Your task to perform on an android device: Clear all items from cart on walmart.com. Search for "macbook air" on walmart.com, select the first entry, and add it to the cart. Image 0: 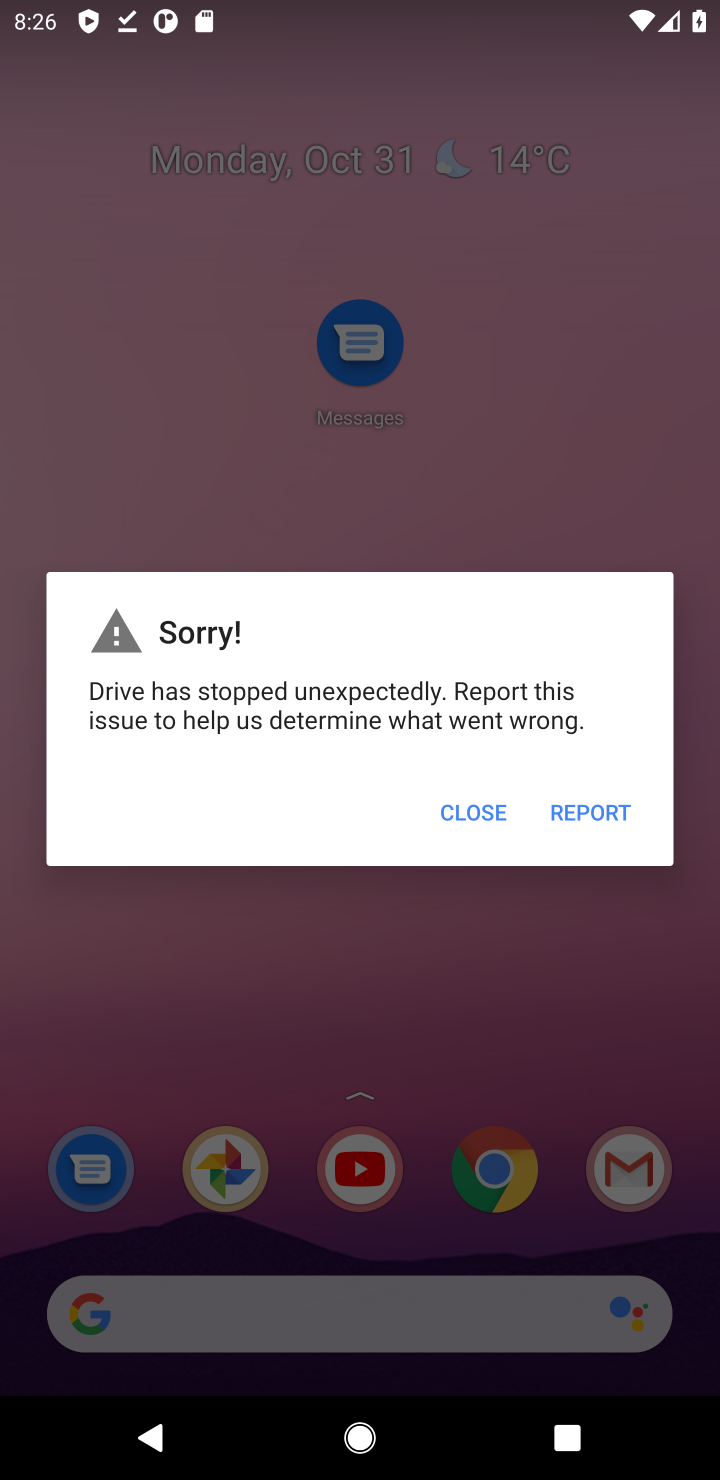
Step 0: click (463, 838)
Your task to perform on an android device: Clear all items from cart on walmart.com. Search for "macbook air" on walmart.com, select the first entry, and add it to the cart. Image 1: 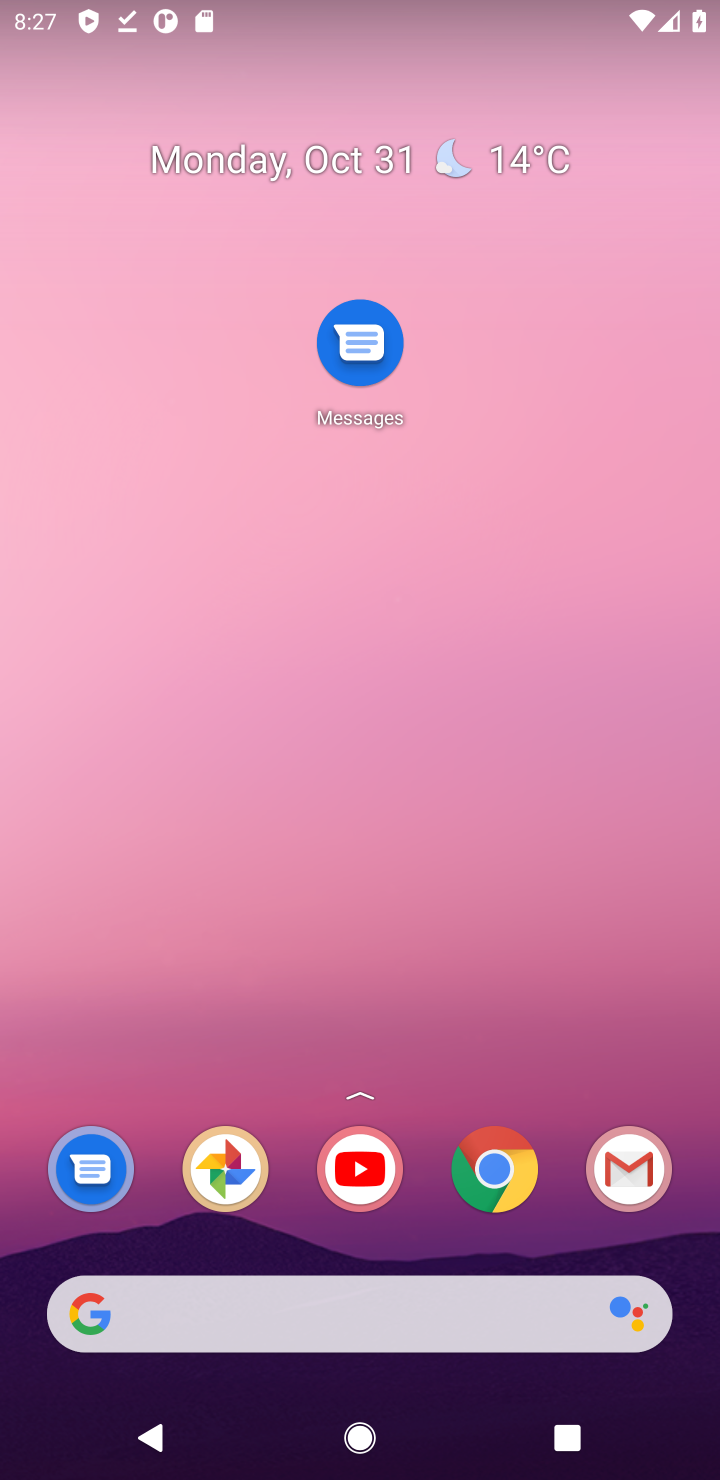
Step 1: drag from (276, 1205) to (429, 357)
Your task to perform on an android device: Clear all items from cart on walmart.com. Search for "macbook air" on walmart.com, select the first entry, and add it to the cart. Image 2: 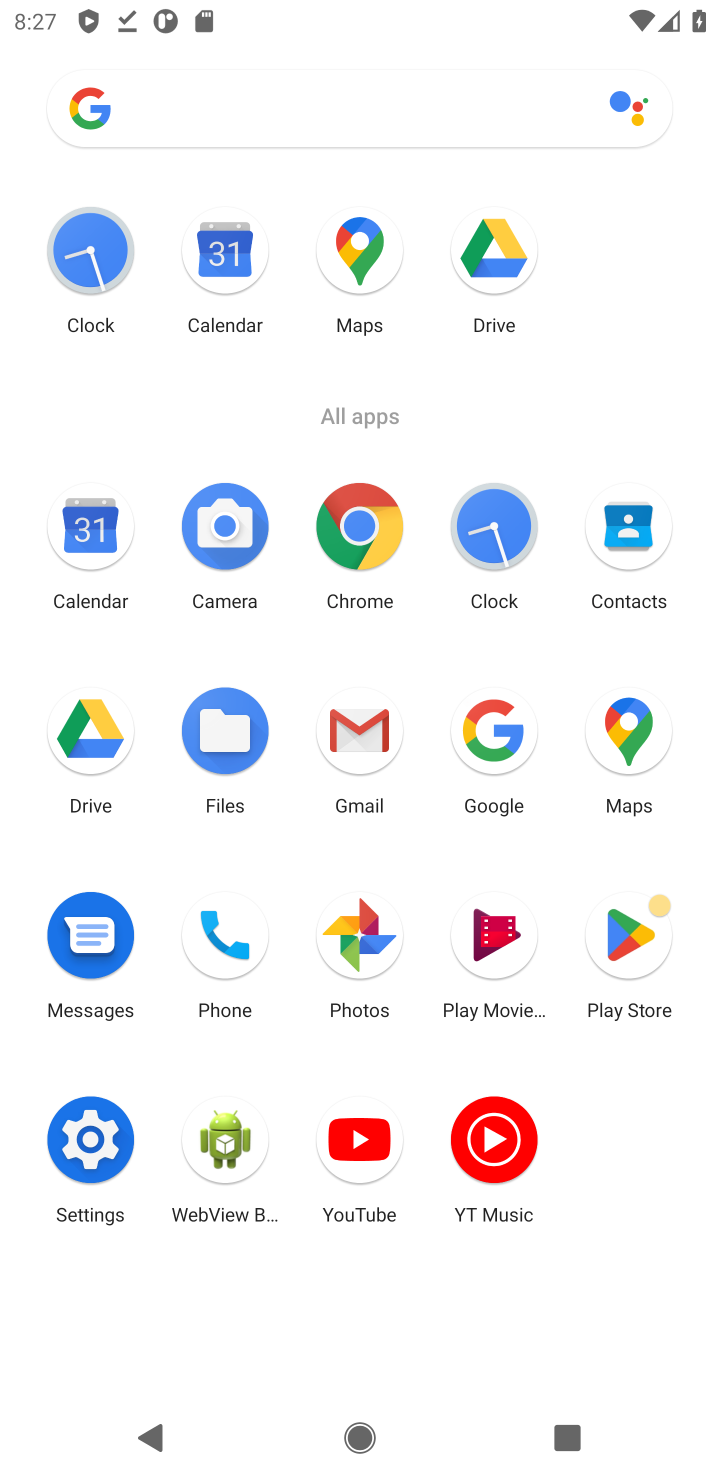
Step 2: click (476, 713)
Your task to perform on an android device: Clear all items from cart on walmart.com. Search for "macbook air" on walmart.com, select the first entry, and add it to the cart. Image 3: 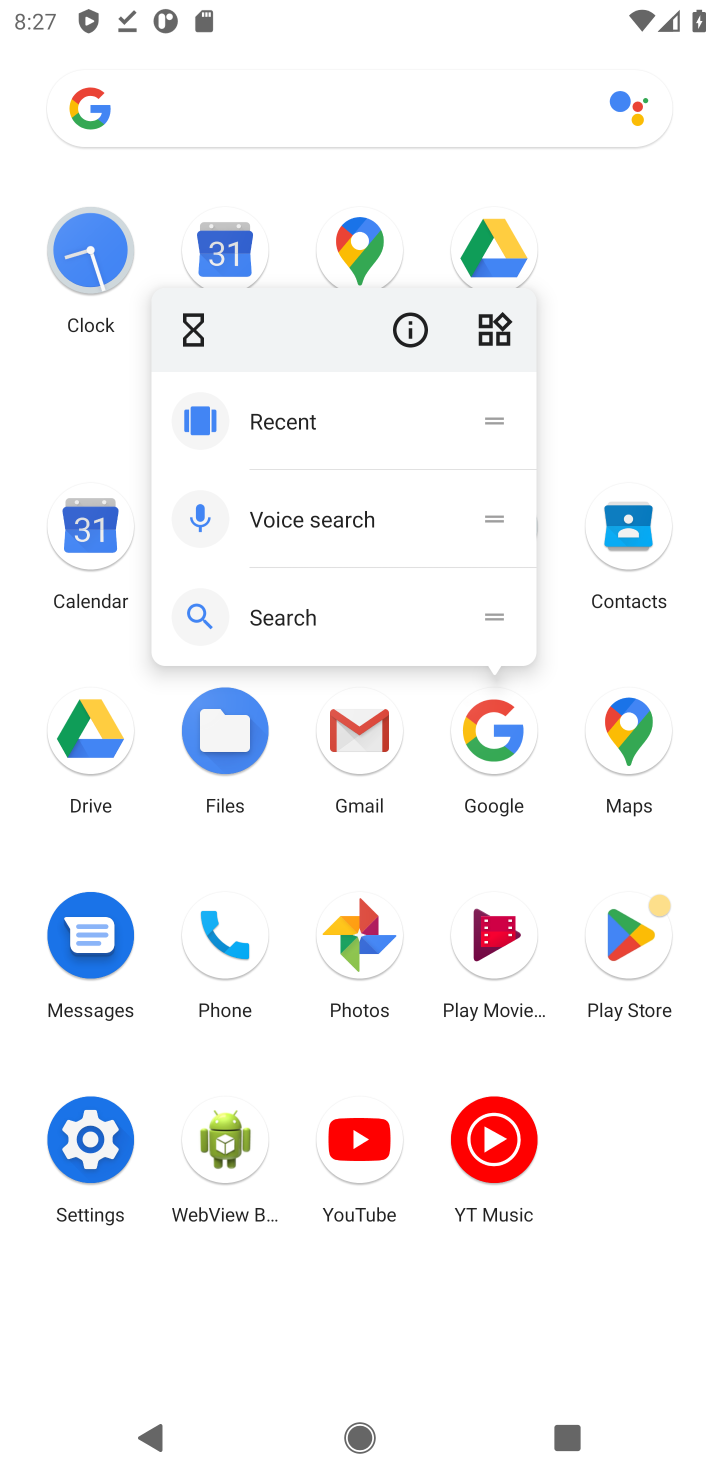
Step 3: click (496, 715)
Your task to perform on an android device: Clear all items from cart on walmart.com. Search for "macbook air" on walmart.com, select the first entry, and add it to the cart. Image 4: 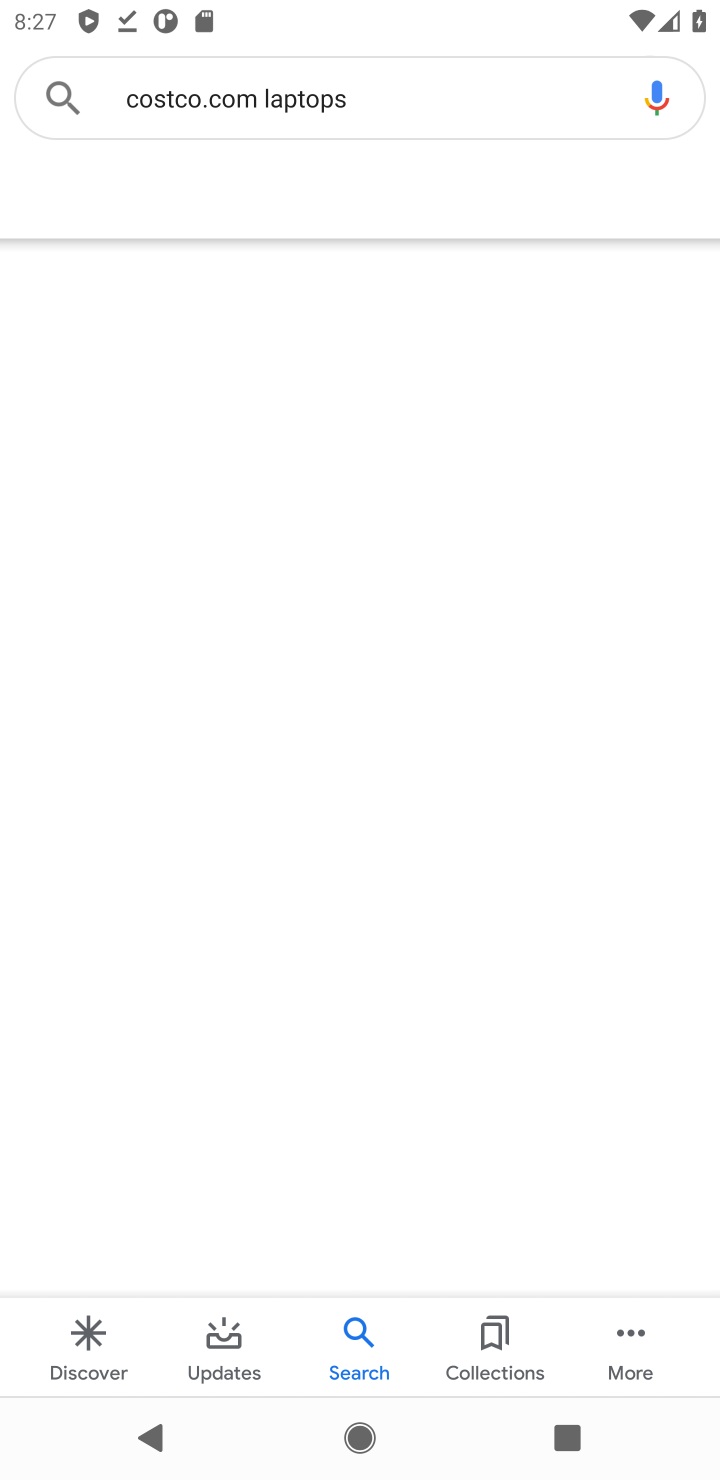
Step 4: click (557, 77)
Your task to perform on an android device: Clear all items from cart on walmart.com. Search for "macbook air" on walmart.com, select the first entry, and add it to the cart. Image 5: 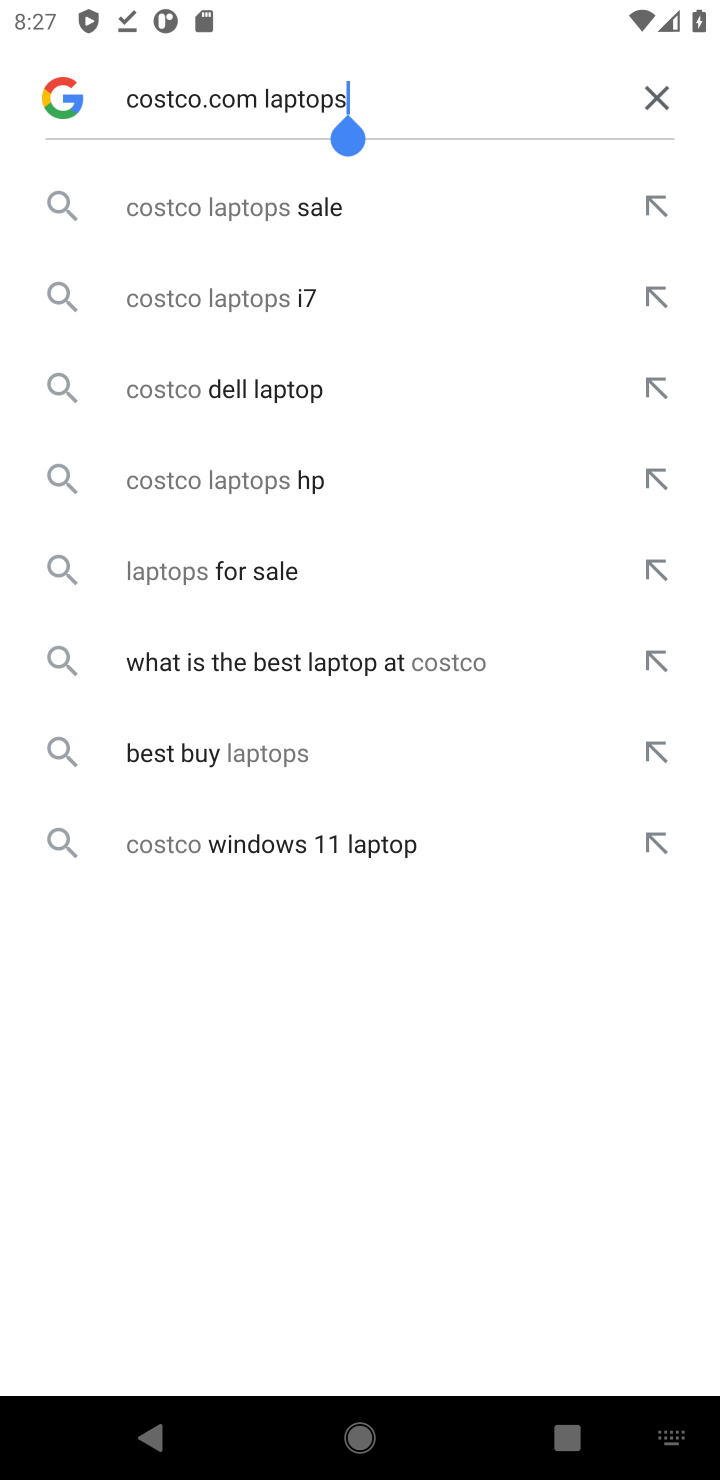
Step 5: click (648, 105)
Your task to perform on an android device: Clear all items from cart on walmart.com. Search for "macbook air" on walmart.com, select the first entry, and add it to the cart. Image 6: 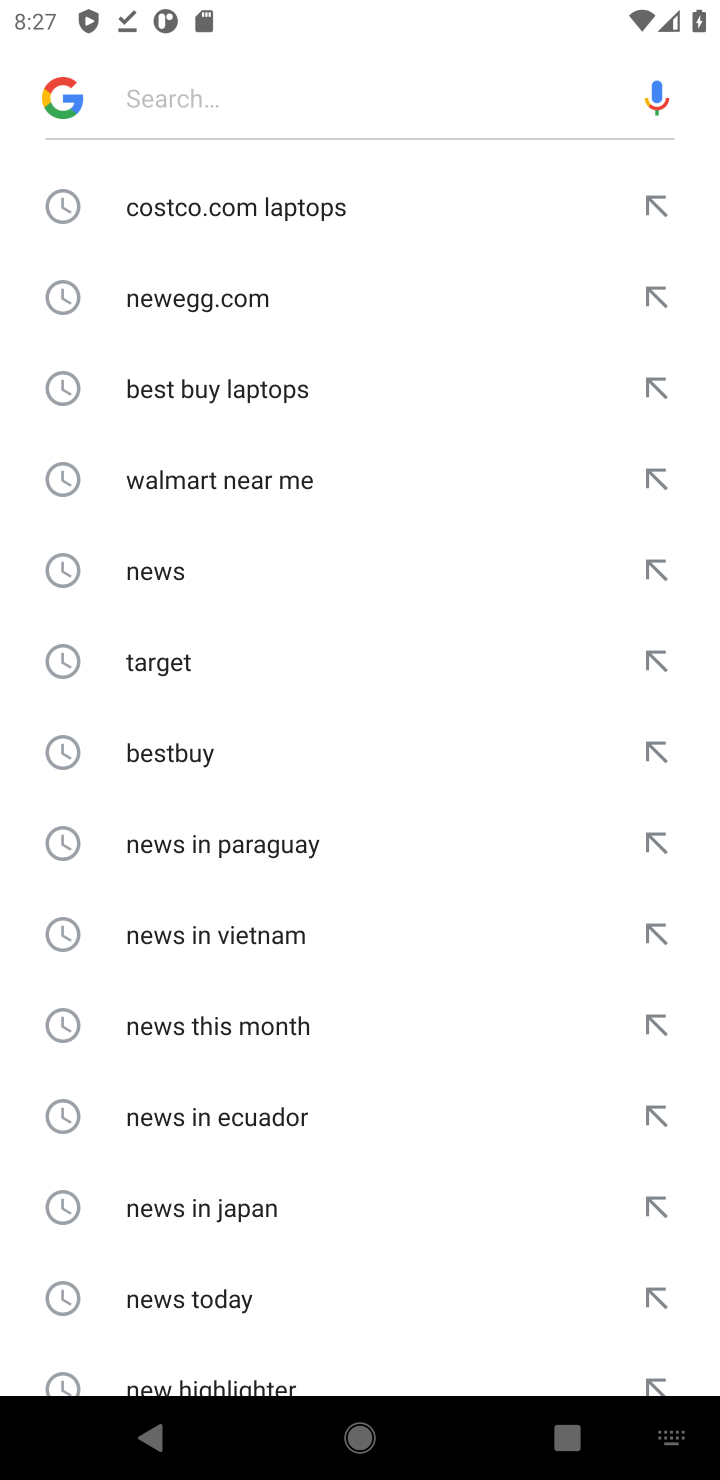
Step 6: click (282, 109)
Your task to perform on an android device: Clear all items from cart on walmart.com. Search for "macbook air" on walmart.com, select the first entry, and add it to the cart. Image 7: 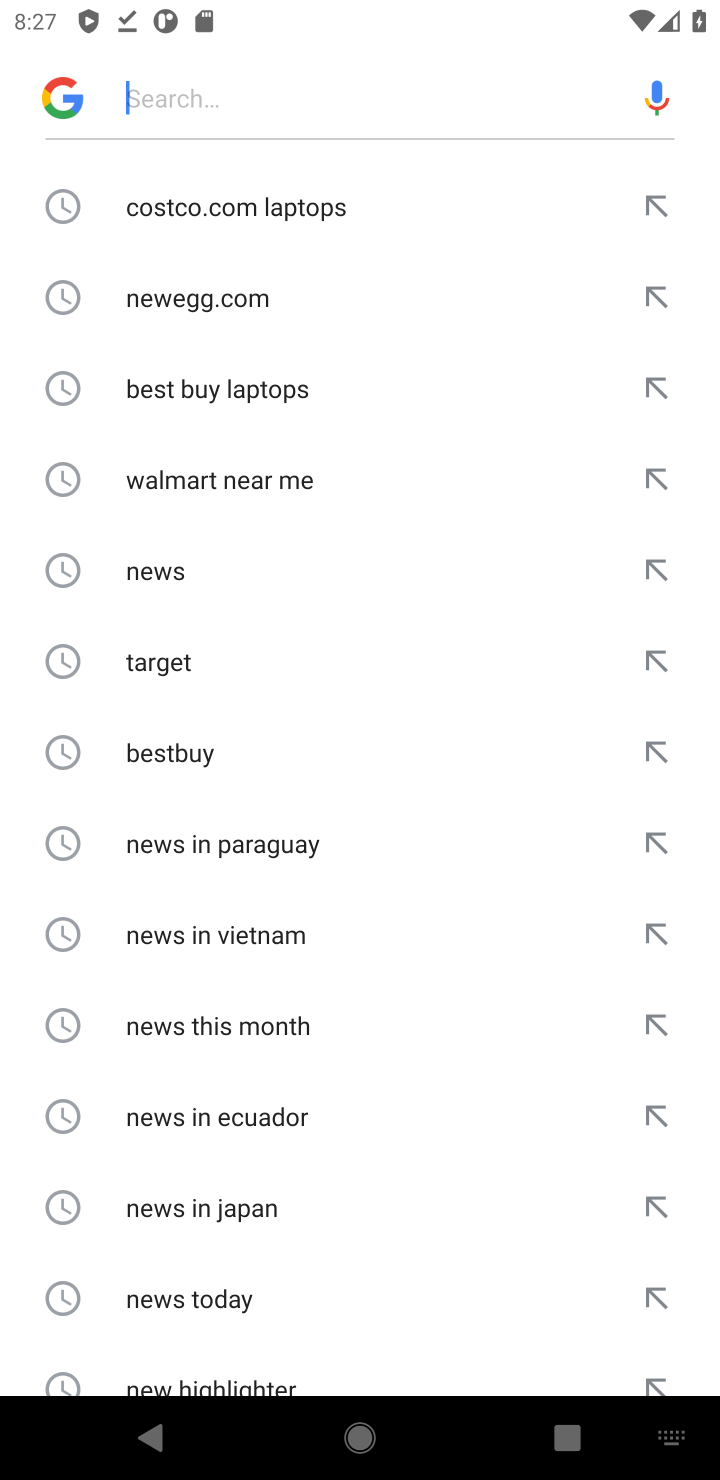
Step 7: type "walmart "
Your task to perform on an android device: Clear all items from cart on walmart.com. Search for "macbook air" on walmart.com, select the first entry, and add it to the cart. Image 8: 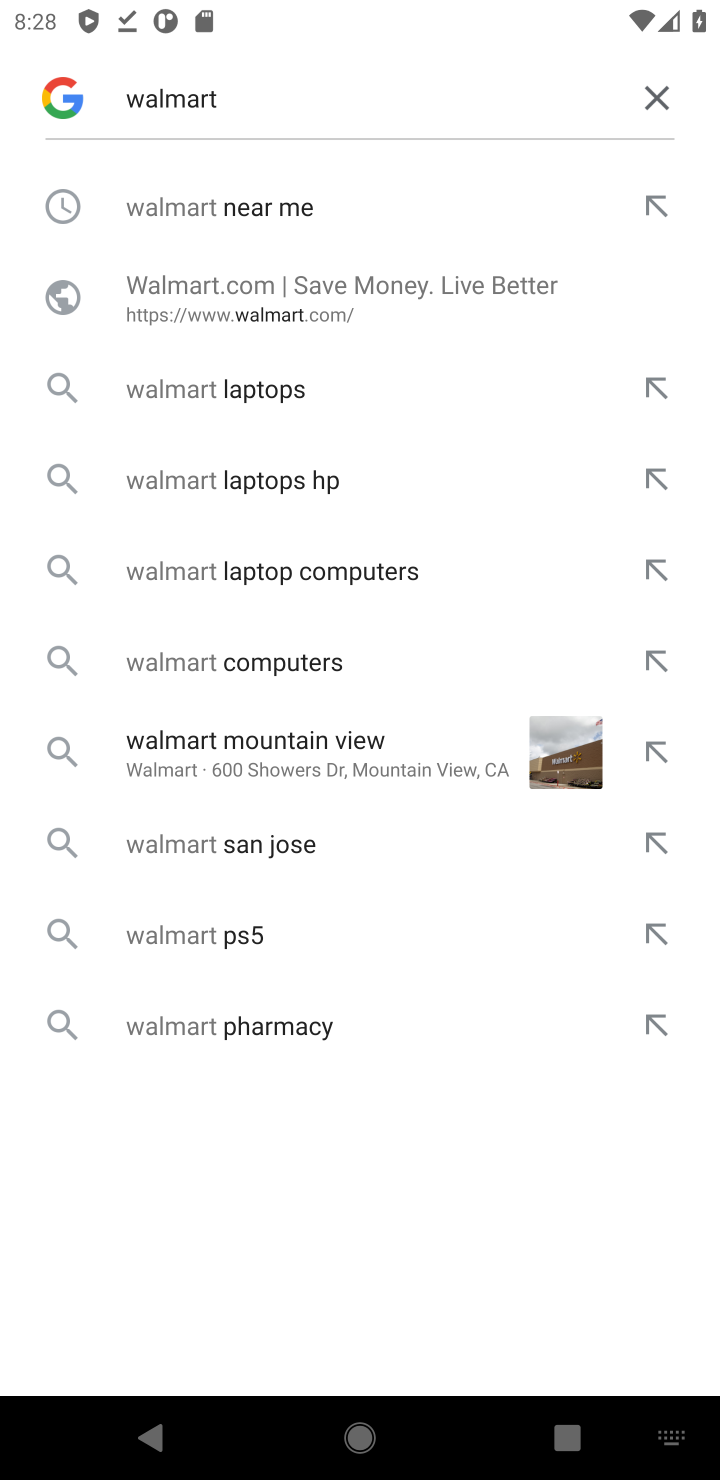
Step 8: click (261, 304)
Your task to perform on an android device: Clear all items from cart on walmart.com. Search for "macbook air" on walmart.com, select the first entry, and add it to the cart. Image 9: 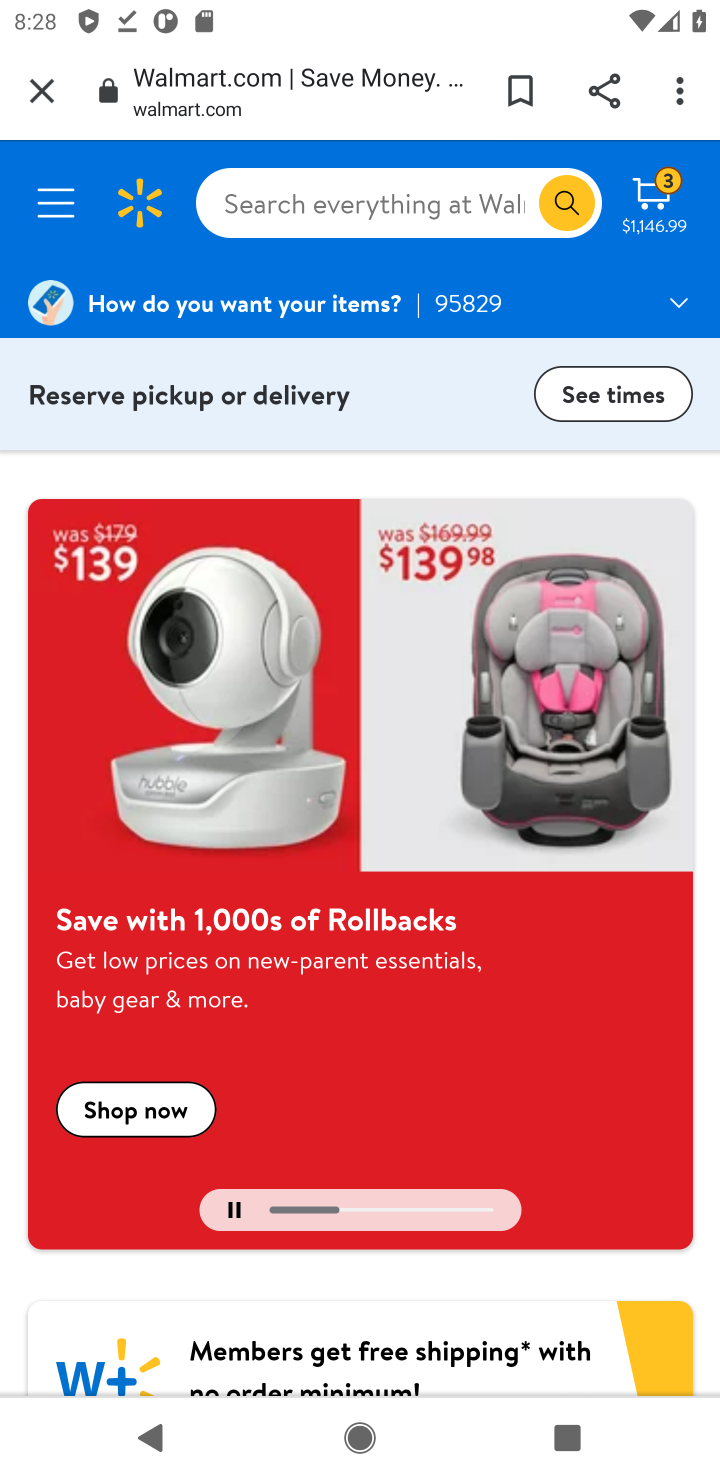
Step 9: click (308, 193)
Your task to perform on an android device: Clear all items from cart on walmart.com. Search for "macbook air" on walmart.com, select the first entry, and add it to the cart. Image 10: 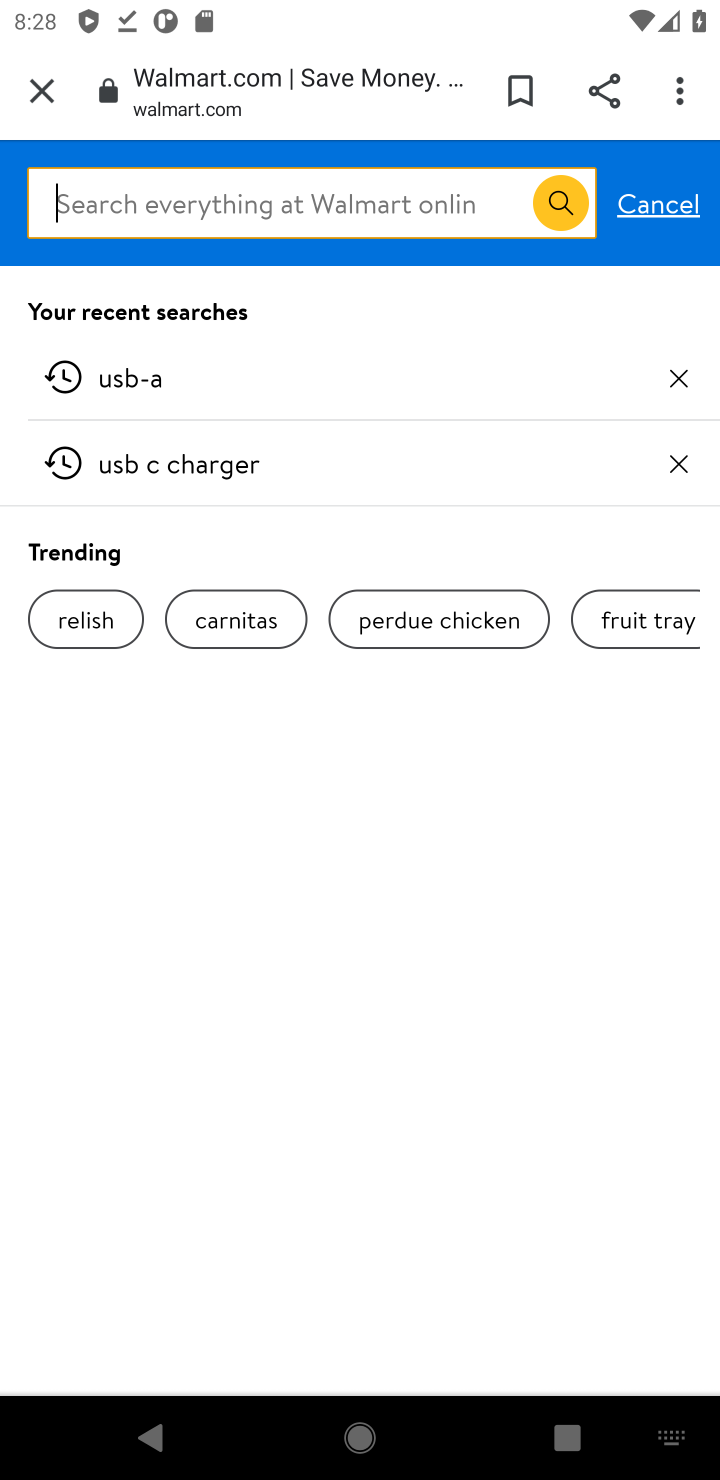
Step 10: click (380, 204)
Your task to perform on an android device: Clear all items from cart on walmart.com. Search for "macbook air" on walmart.com, select the first entry, and add it to the cart. Image 11: 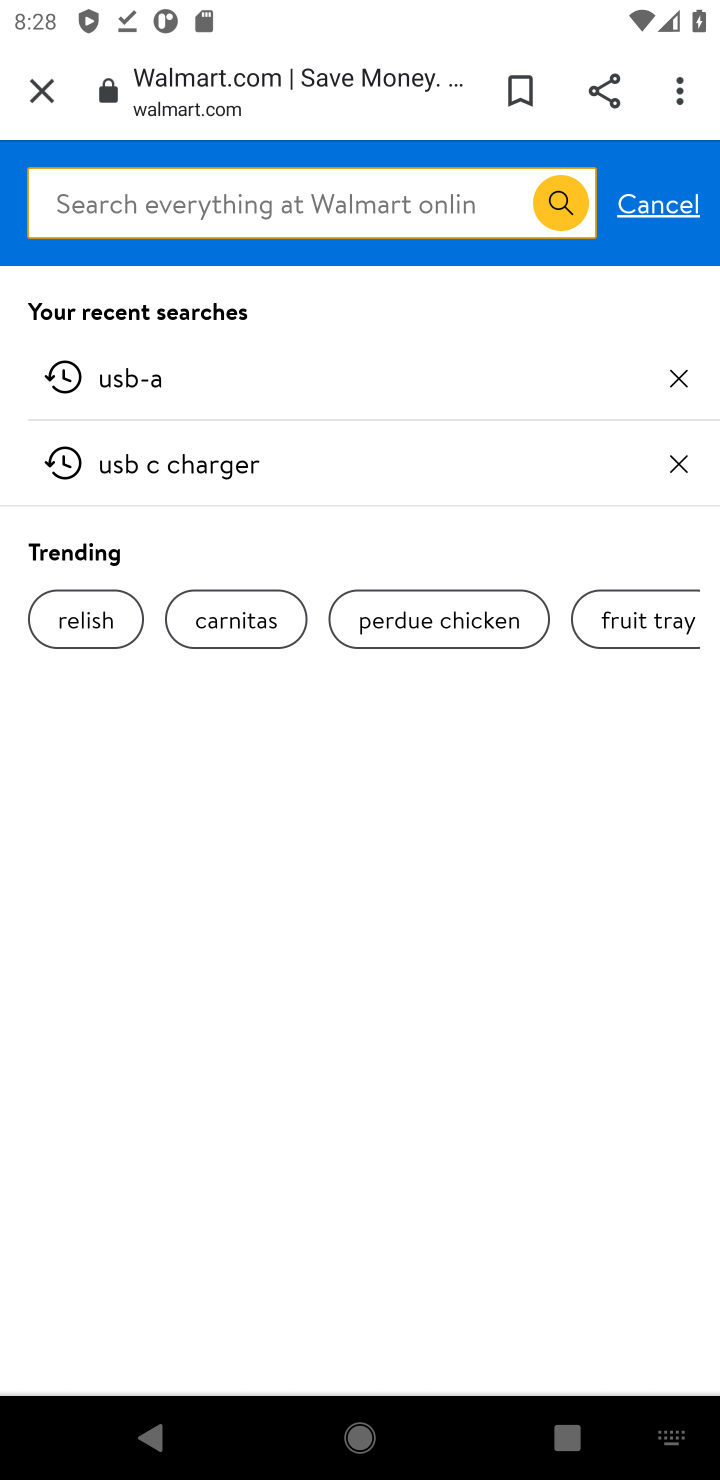
Step 11: type "macbook "
Your task to perform on an android device: Clear all items from cart on walmart.com. Search for "macbook air" on walmart.com, select the first entry, and add it to the cart. Image 12: 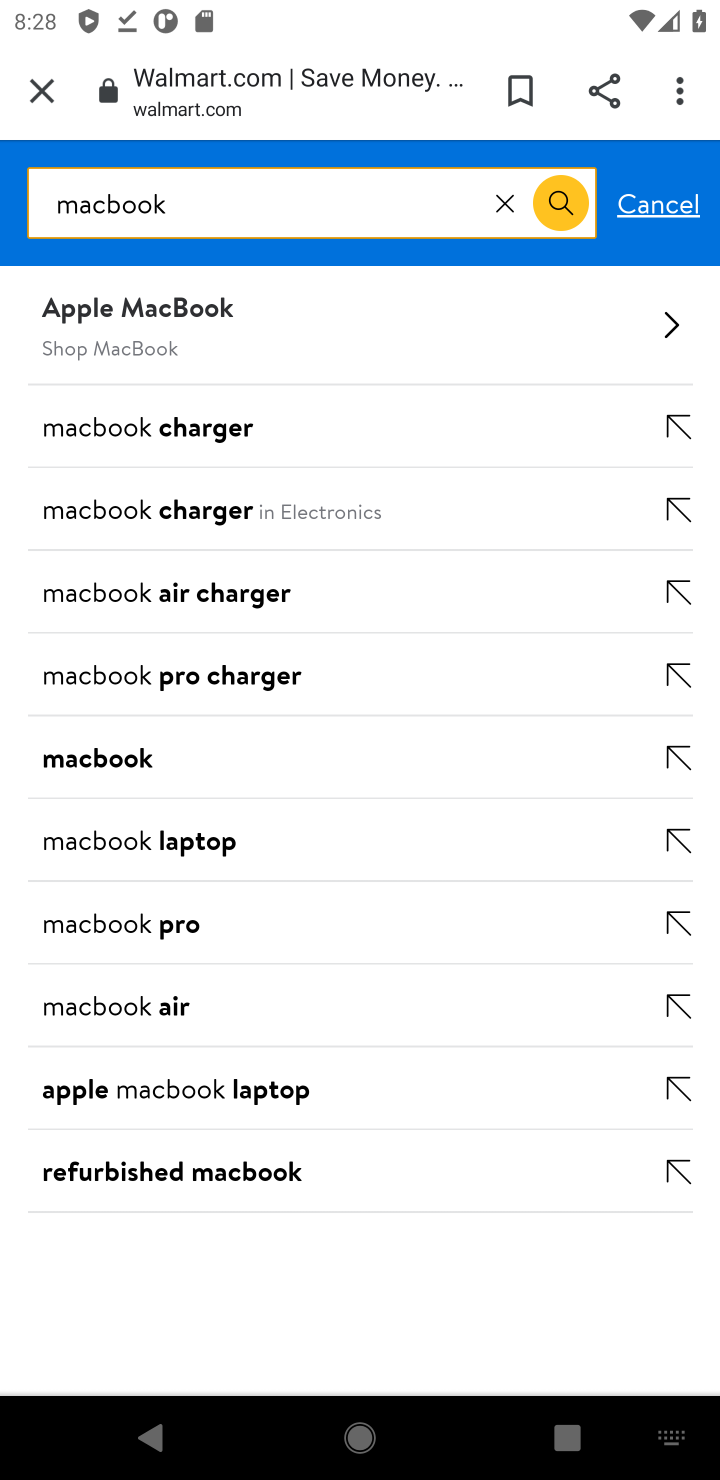
Step 12: click (92, 1000)
Your task to perform on an android device: Clear all items from cart on walmart.com. Search for "macbook air" on walmart.com, select the first entry, and add it to the cart. Image 13: 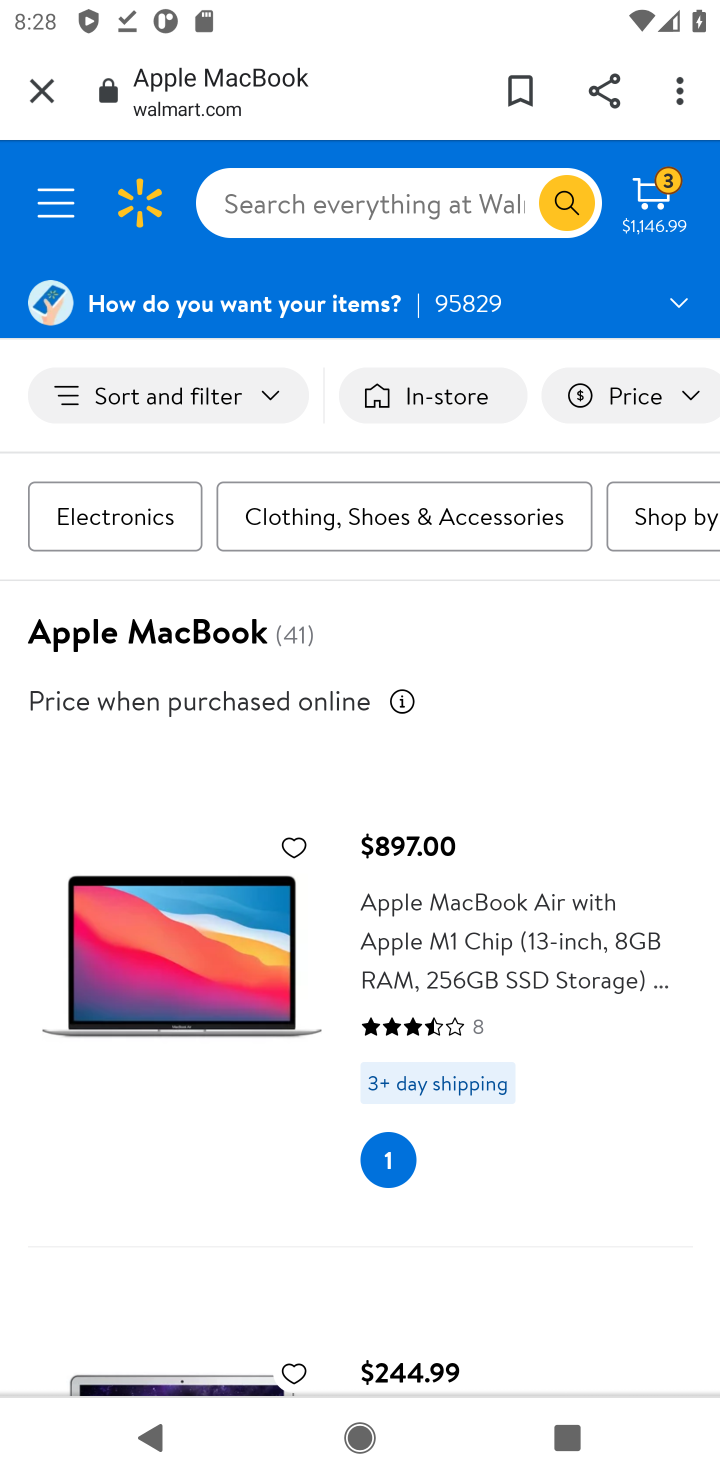
Step 13: drag from (440, 1169) to (524, 766)
Your task to perform on an android device: Clear all items from cart on walmart.com. Search for "macbook air" on walmart.com, select the first entry, and add it to the cart. Image 14: 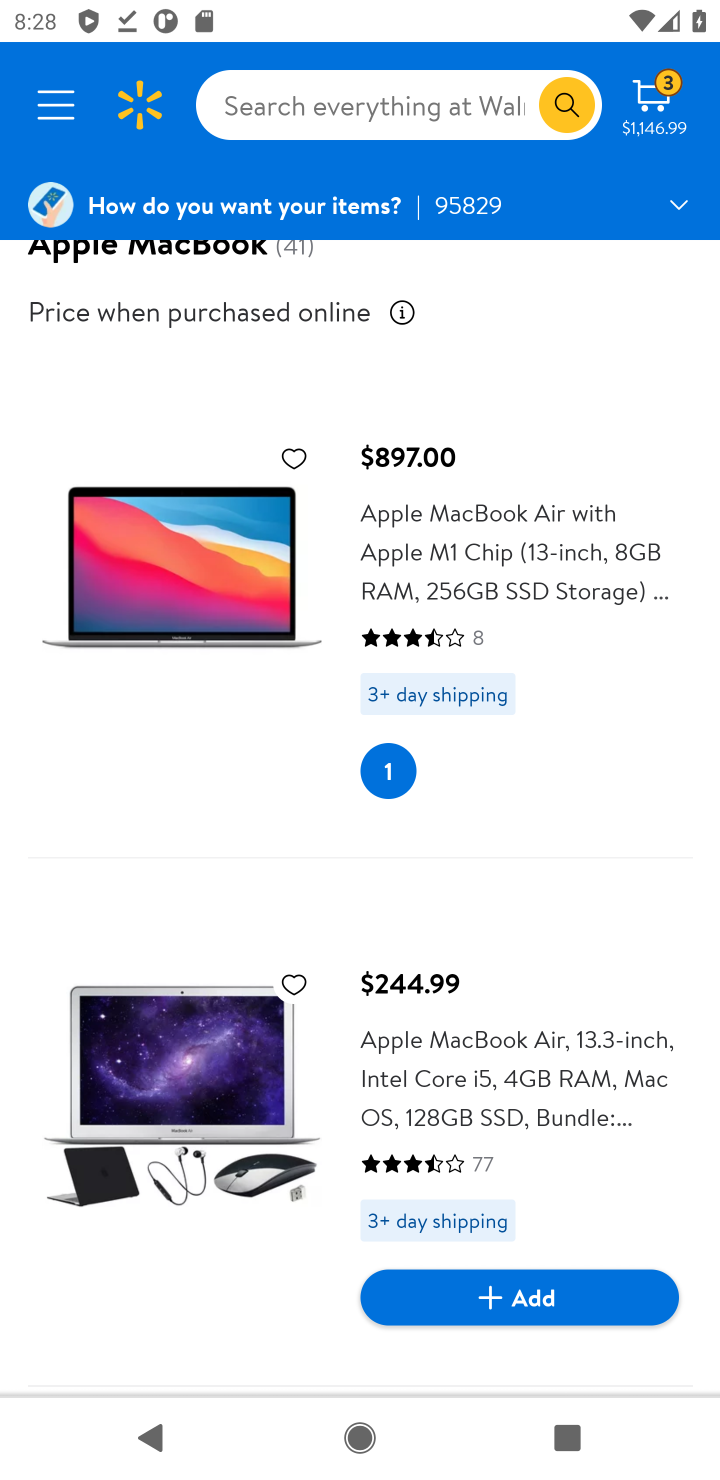
Step 14: click (447, 1291)
Your task to perform on an android device: Clear all items from cart on walmart.com. Search for "macbook air" on walmart.com, select the first entry, and add it to the cart. Image 15: 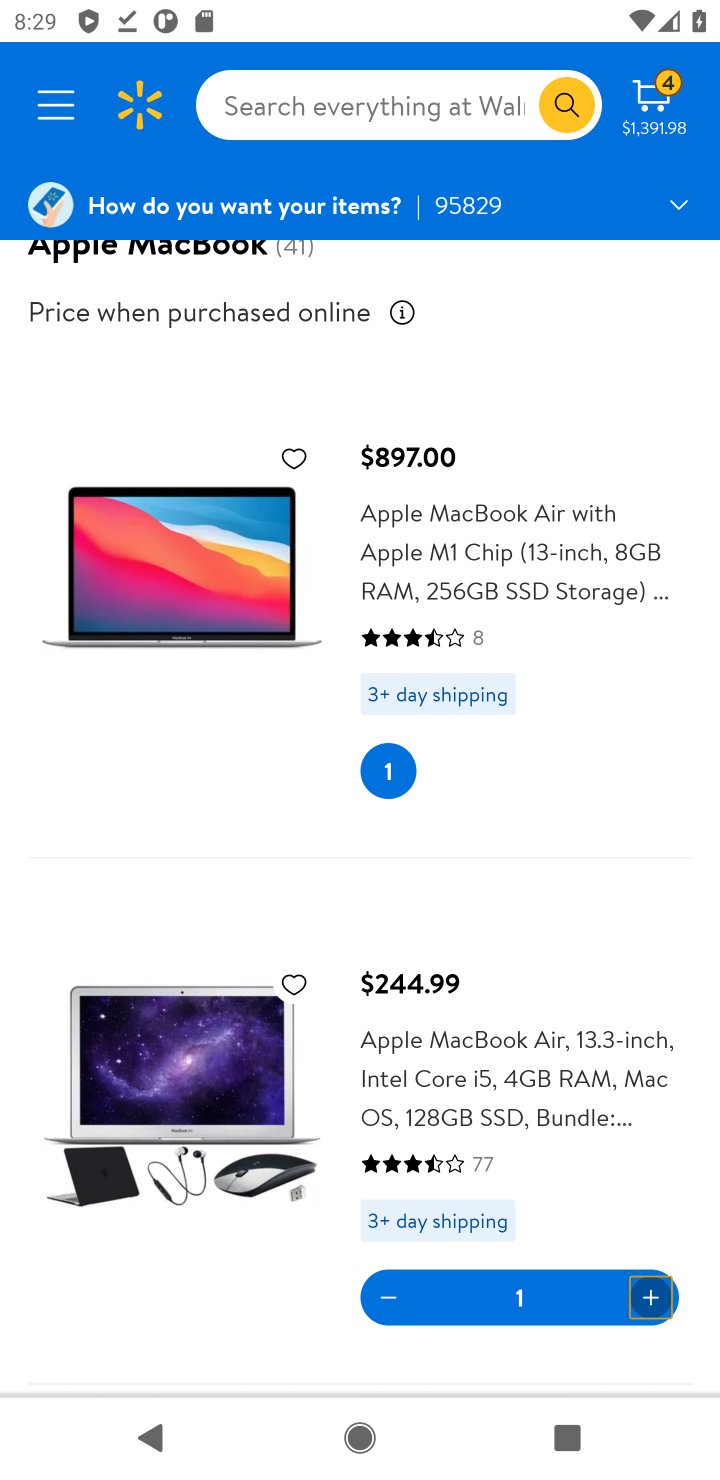
Step 15: task complete